Your task to perform on an android device: Open maps Image 0: 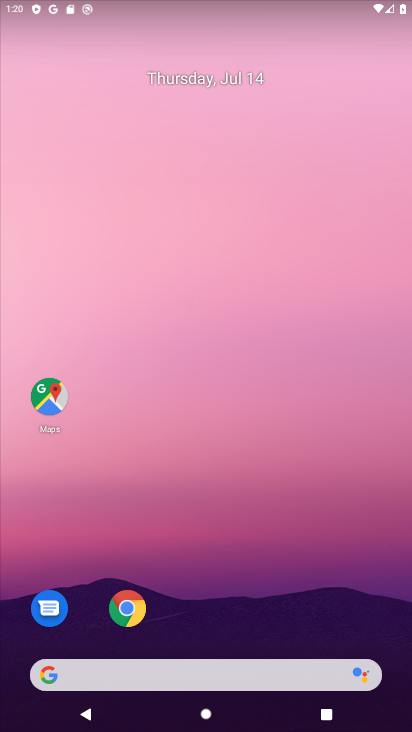
Step 0: click (40, 401)
Your task to perform on an android device: Open maps Image 1: 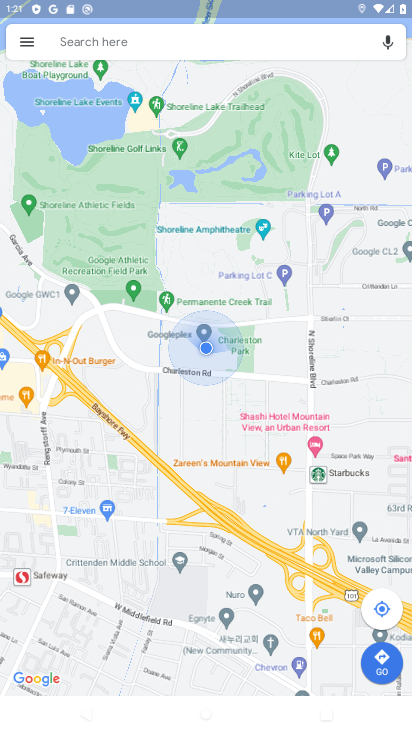
Step 1: task complete